Your task to perform on an android device: What's the weather today? Image 0: 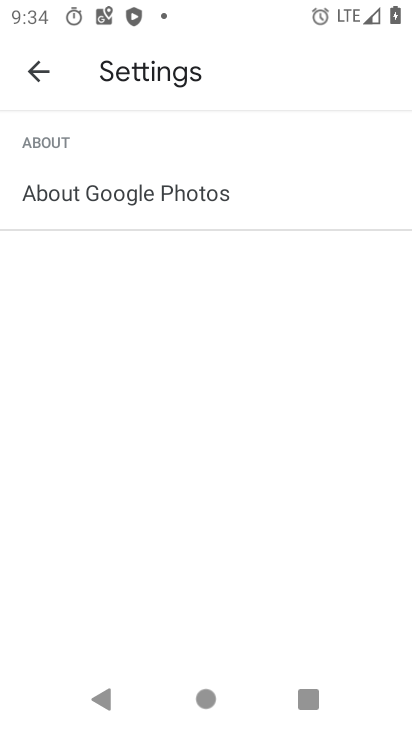
Step 0: press home button
Your task to perform on an android device: What's the weather today? Image 1: 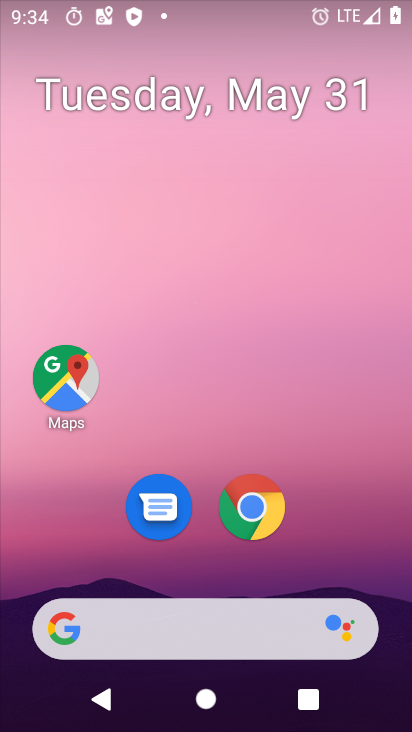
Step 1: click (197, 622)
Your task to perform on an android device: What's the weather today? Image 2: 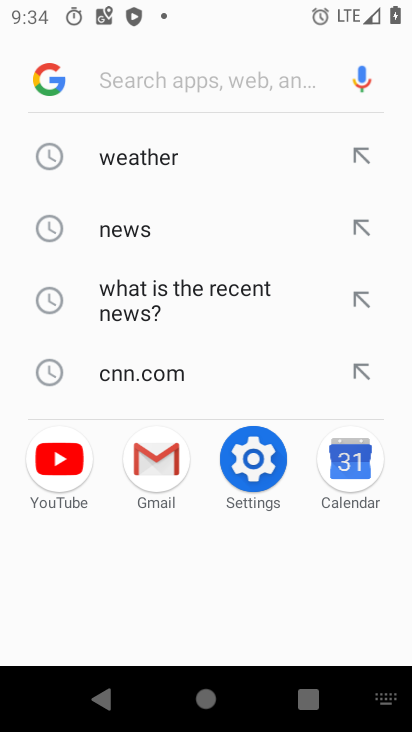
Step 2: click (175, 150)
Your task to perform on an android device: What's the weather today? Image 3: 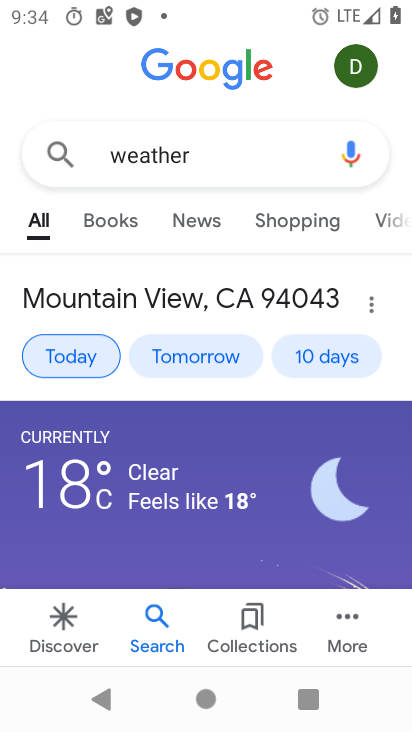
Step 3: click (41, 364)
Your task to perform on an android device: What's the weather today? Image 4: 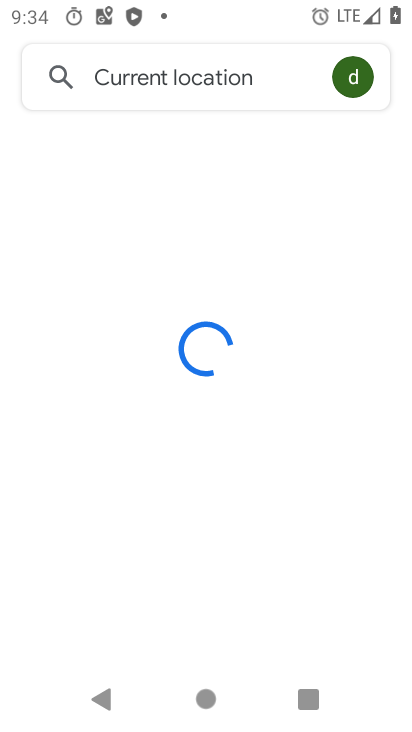
Step 4: task complete